Your task to perform on an android device: toggle improve location accuracy Image 0: 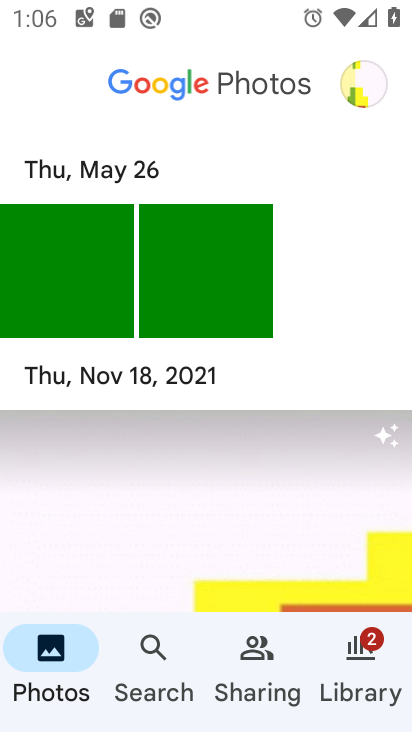
Step 0: press home button
Your task to perform on an android device: toggle improve location accuracy Image 1: 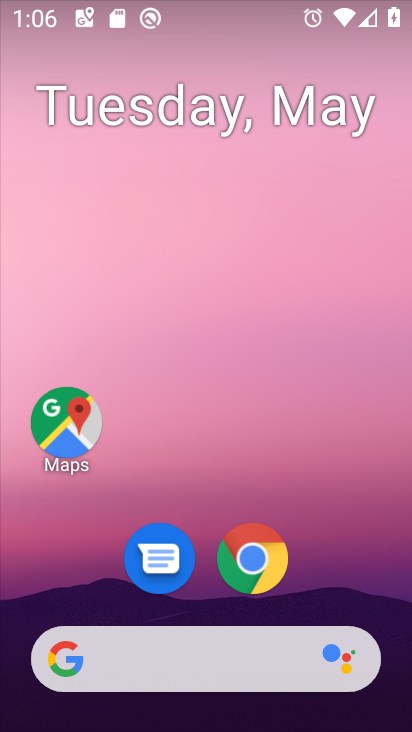
Step 1: drag from (378, 598) to (248, 36)
Your task to perform on an android device: toggle improve location accuracy Image 2: 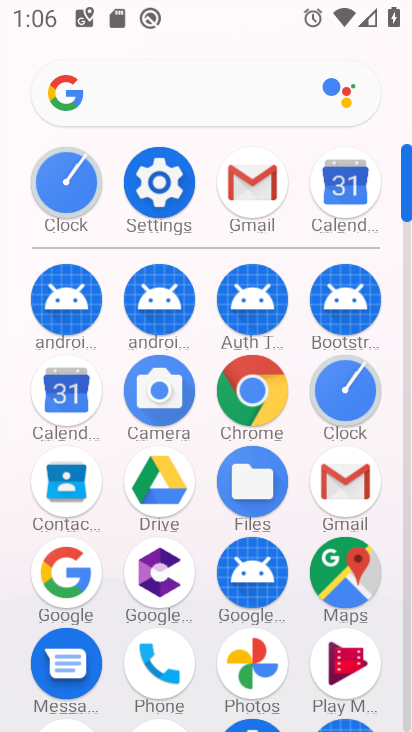
Step 2: click (134, 198)
Your task to perform on an android device: toggle improve location accuracy Image 3: 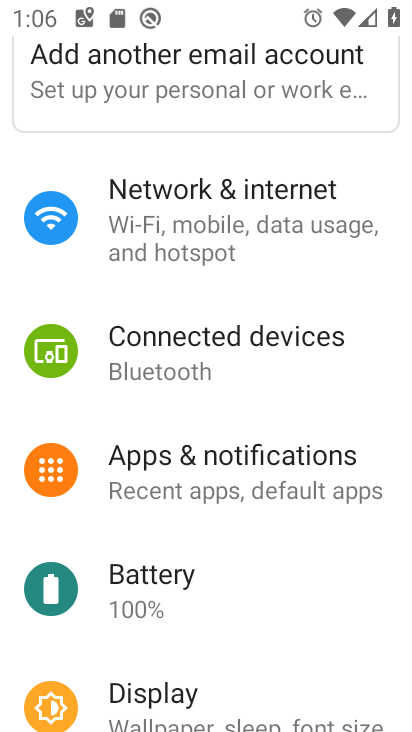
Step 3: drag from (249, 561) to (208, 164)
Your task to perform on an android device: toggle improve location accuracy Image 4: 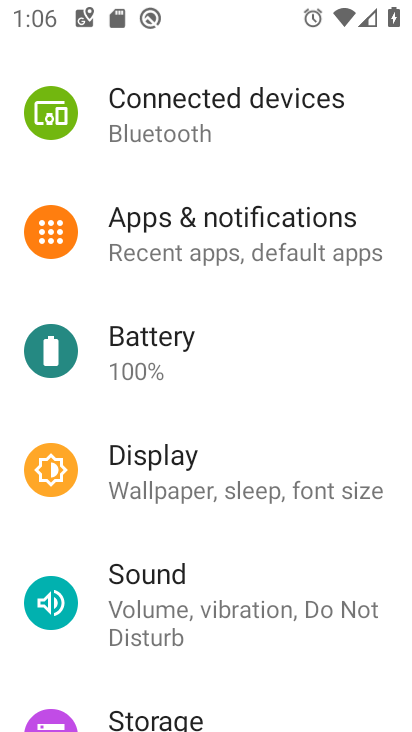
Step 4: drag from (281, 632) to (295, 154)
Your task to perform on an android device: toggle improve location accuracy Image 5: 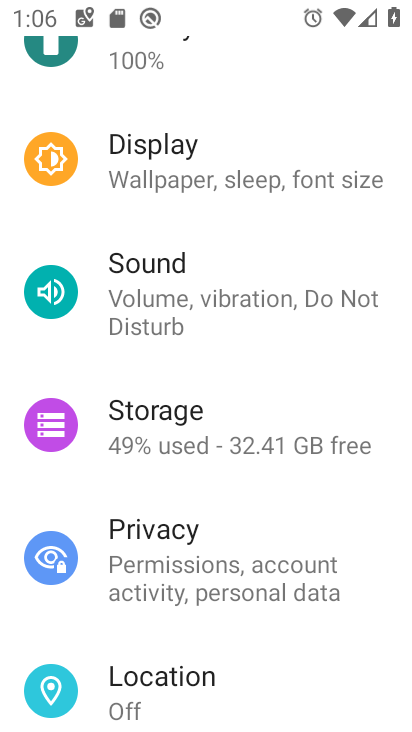
Step 5: drag from (248, 604) to (242, 304)
Your task to perform on an android device: toggle improve location accuracy Image 6: 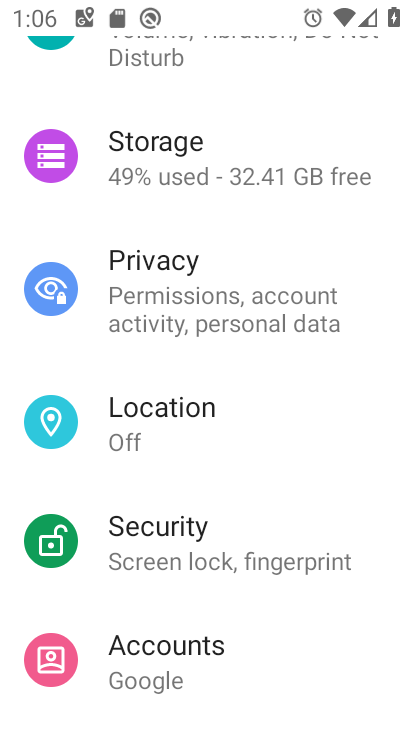
Step 6: click (250, 444)
Your task to perform on an android device: toggle improve location accuracy Image 7: 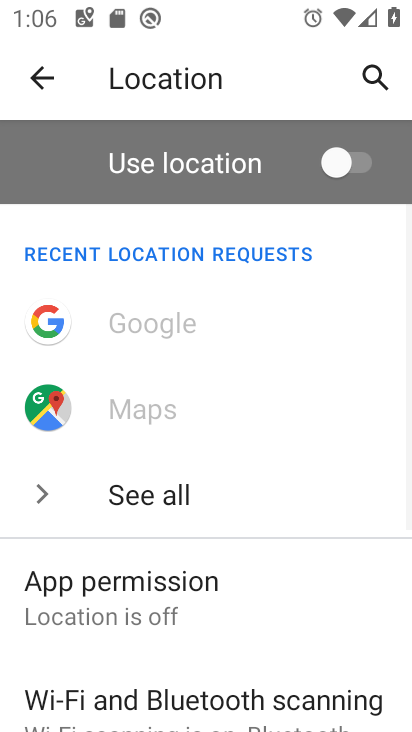
Step 7: drag from (264, 639) to (206, 103)
Your task to perform on an android device: toggle improve location accuracy Image 8: 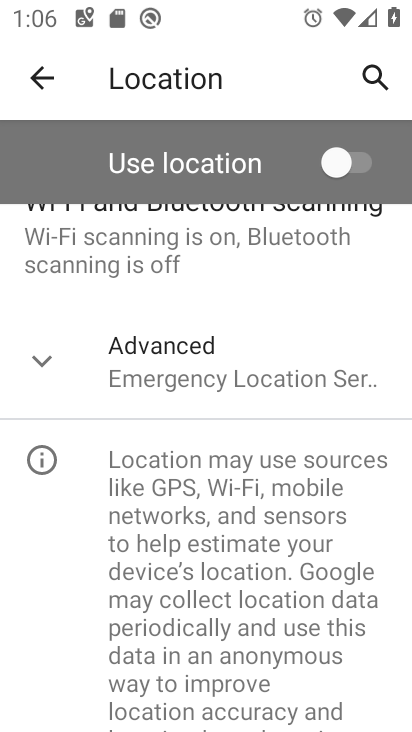
Step 8: click (236, 387)
Your task to perform on an android device: toggle improve location accuracy Image 9: 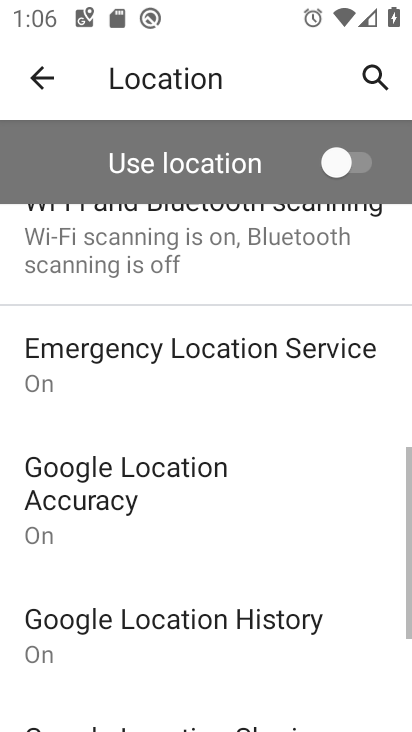
Step 9: drag from (256, 576) to (239, 280)
Your task to perform on an android device: toggle improve location accuracy Image 10: 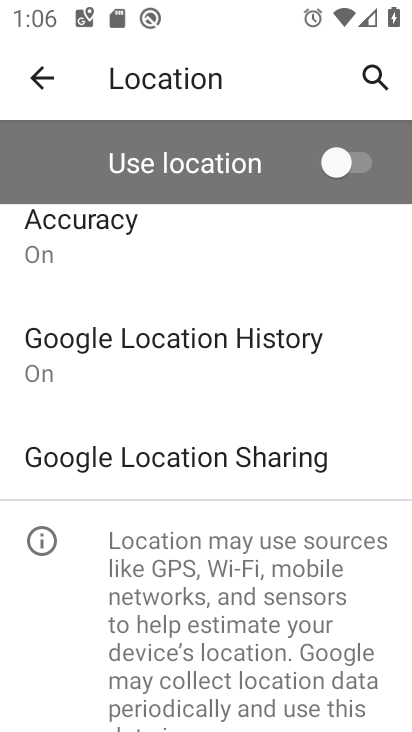
Step 10: click (193, 251)
Your task to perform on an android device: toggle improve location accuracy Image 11: 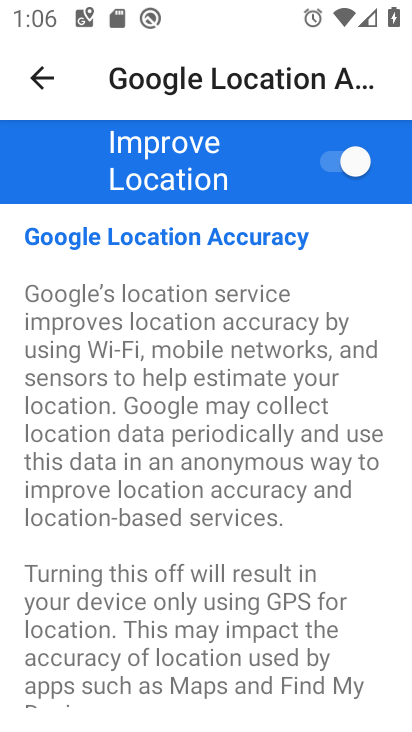
Step 11: click (339, 159)
Your task to perform on an android device: toggle improve location accuracy Image 12: 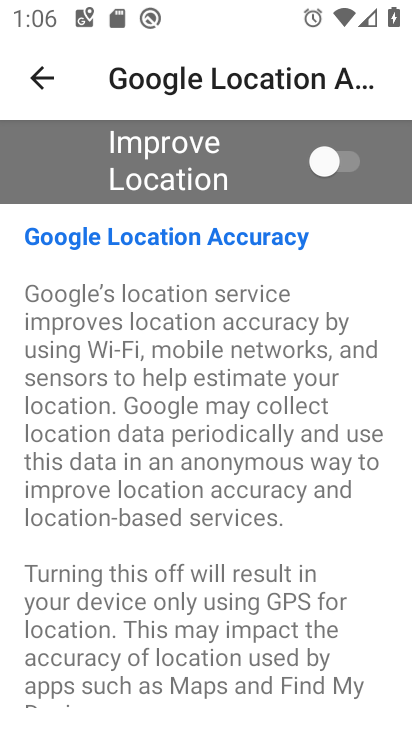
Step 12: task complete